Your task to perform on an android device: Open battery settings Image 0: 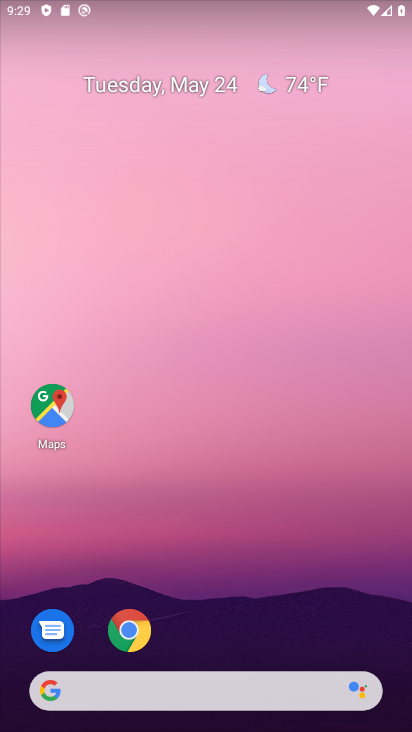
Step 0: drag from (264, 635) to (340, 8)
Your task to perform on an android device: Open battery settings Image 1: 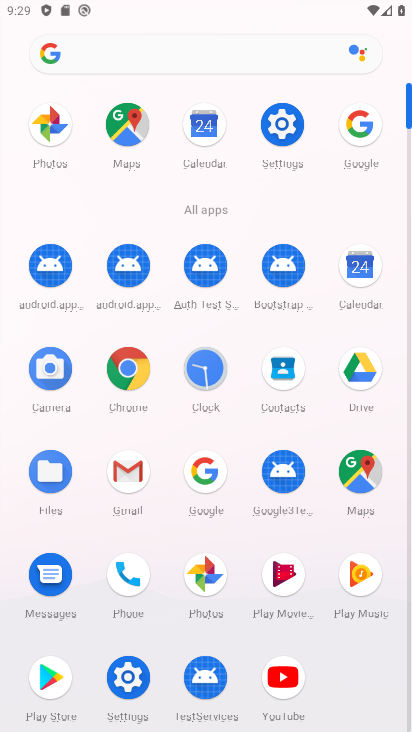
Step 1: click (283, 136)
Your task to perform on an android device: Open battery settings Image 2: 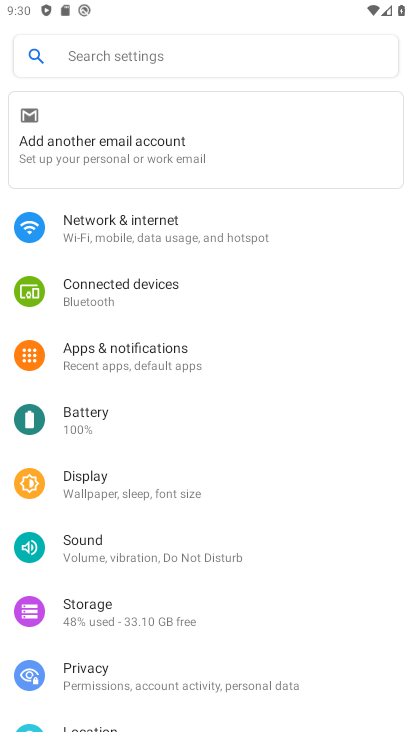
Step 2: click (118, 411)
Your task to perform on an android device: Open battery settings Image 3: 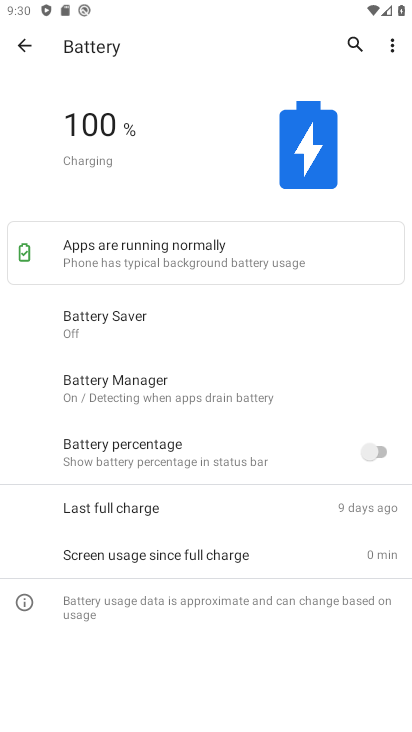
Step 3: task complete